Your task to perform on an android device: Go to Amazon Image 0: 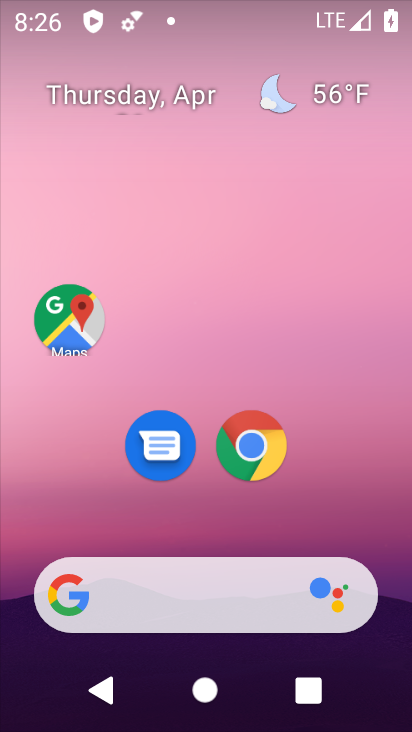
Step 0: click (261, 454)
Your task to perform on an android device: Go to Amazon Image 1: 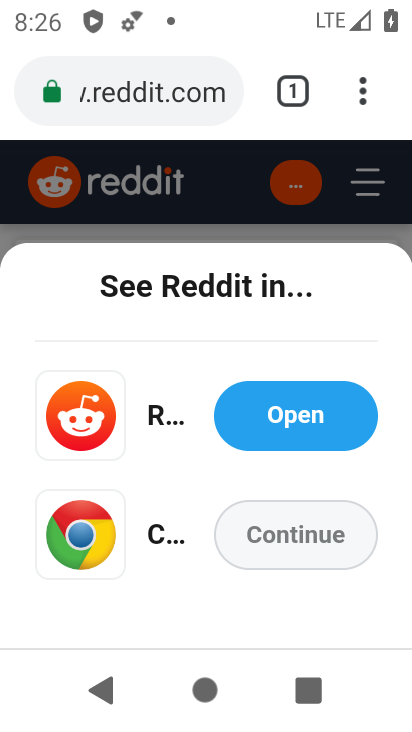
Step 1: click (147, 94)
Your task to perform on an android device: Go to Amazon Image 2: 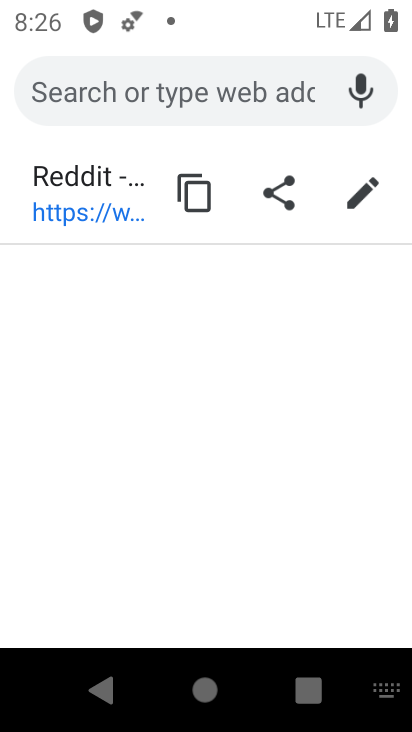
Step 2: type "amazon"
Your task to perform on an android device: Go to Amazon Image 3: 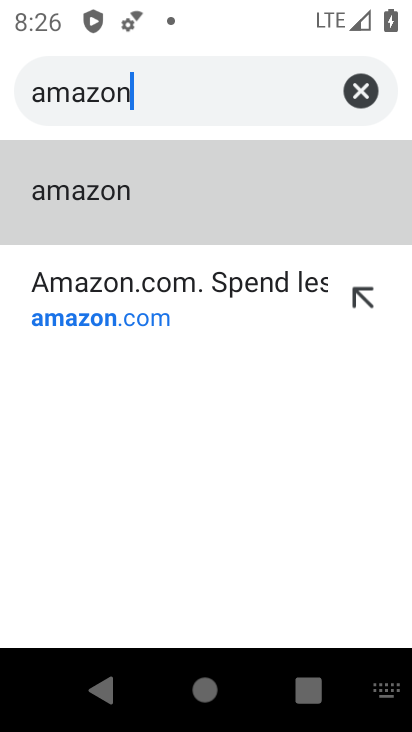
Step 3: click (97, 284)
Your task to perform on an android device: Go to Amazon Image 4: 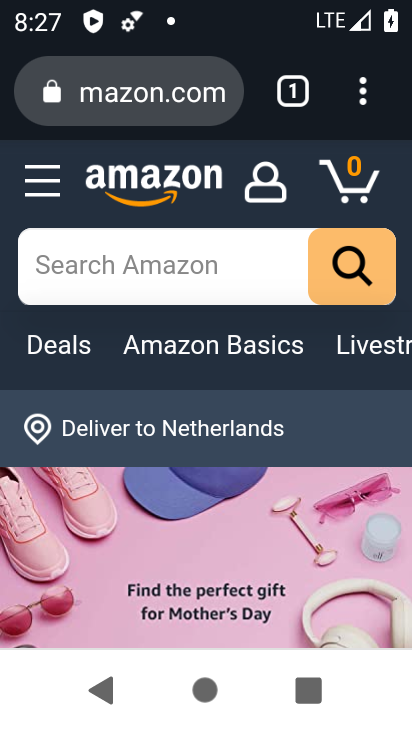
Step 4: task complete